Your task to perform on an android device: star an email in the gmail app Image 0: 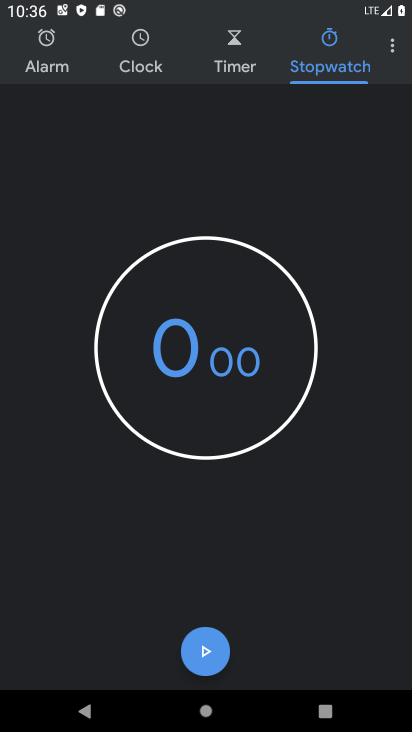
Step 0: press home button
Your task to perform on an android device: star an email in the gmail app Image 1: 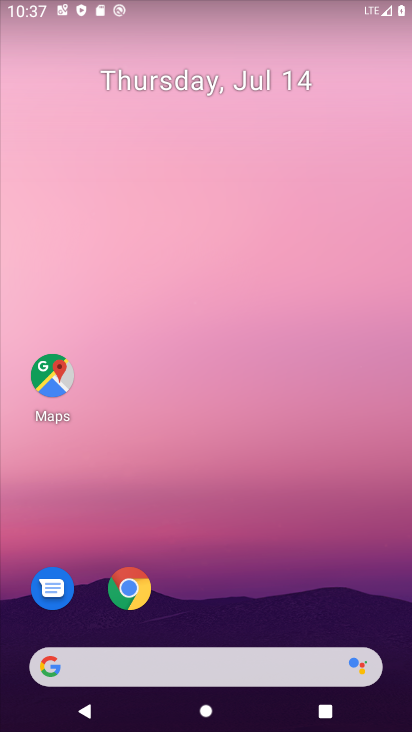
Step 1: drag from (339, 603) to (227, 7)
Your task to perform on an android device: star an email in the gmail app Image 2: 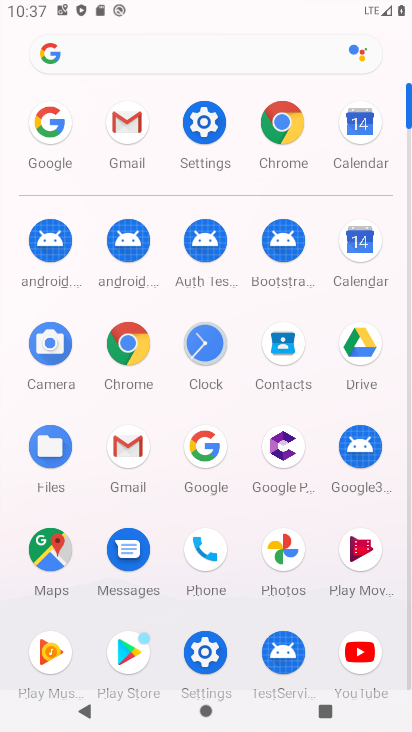
Step 2: click (107, 452)
Your task to perform on an android device: star an email in the gmail app Image 3: 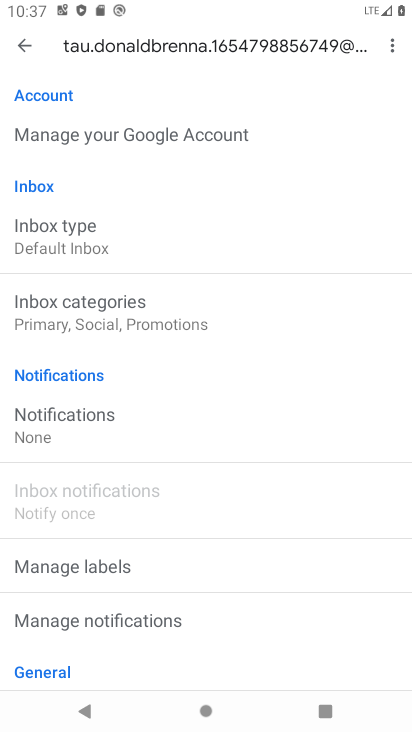
Step 3: press back button
Your task to perform on an android device: star an email in the gmail app Image 4: 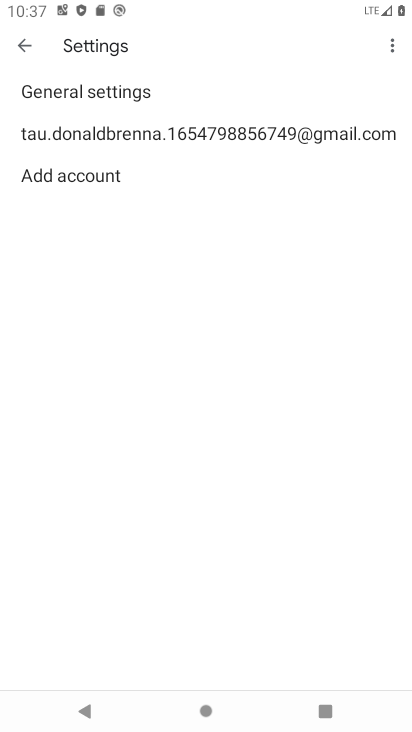
Step 4: press back button
Your task to perform on an android device: star an email in the gmail app Image 5: 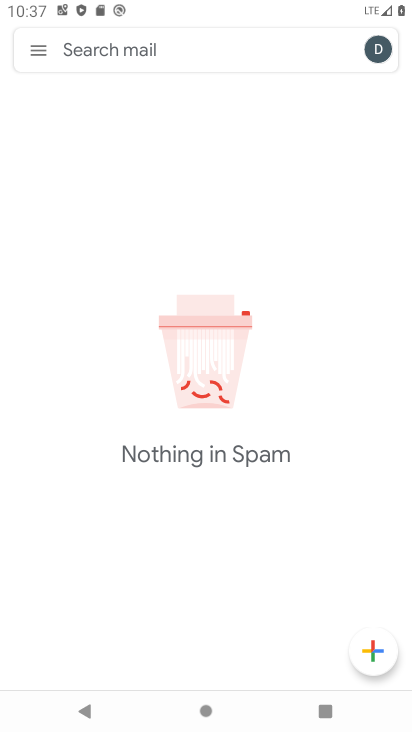
Step 5: click (43, 57)
Your task to perform on an android device: star an email in the gmail app Image 6: 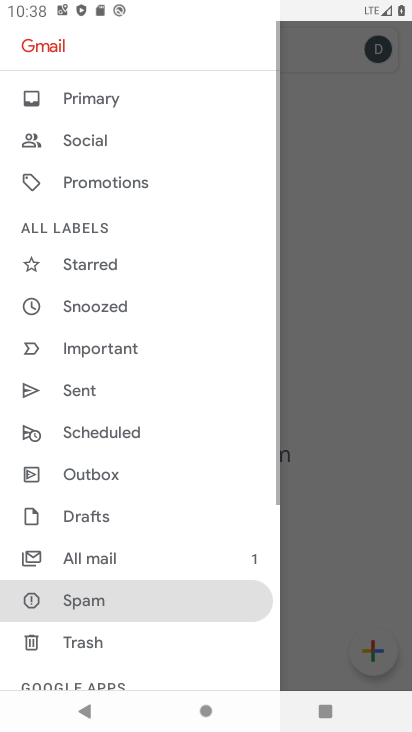
Step 6: click (71, 90)
Your task to perform on an android device: star an email in the gmail app Image 7: 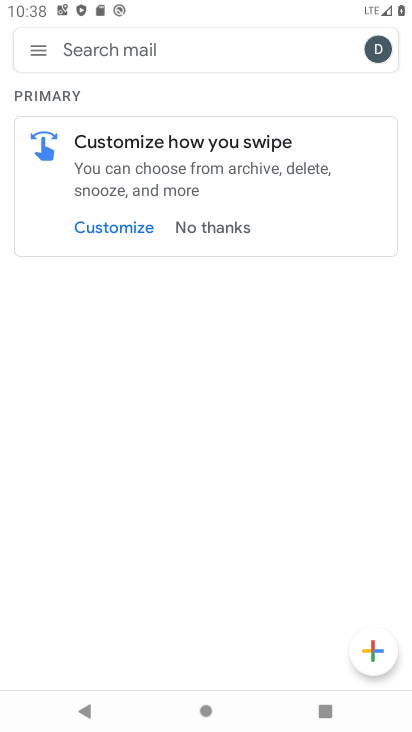
Step 7: task complete